Your task to perform on an android device: Open Yahoo.com Image 0: 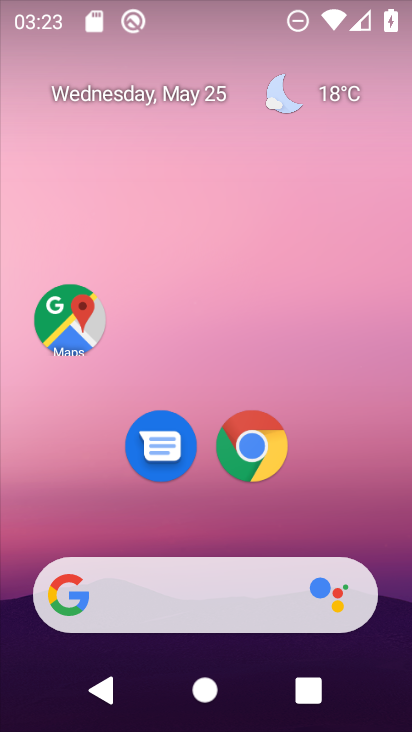
Step 0: click (255, 470)
Your task to perform on an android device: Open Yahoo.com Image 1: 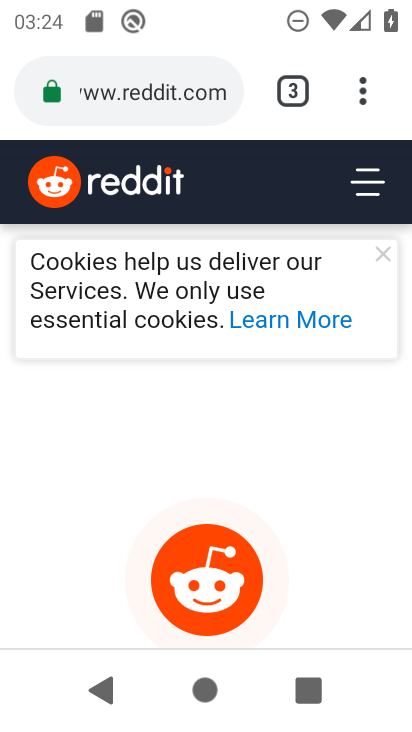
Step 1: click (179, 93)
Your task to perform on an android device: Open Yahoo.com Image 2: 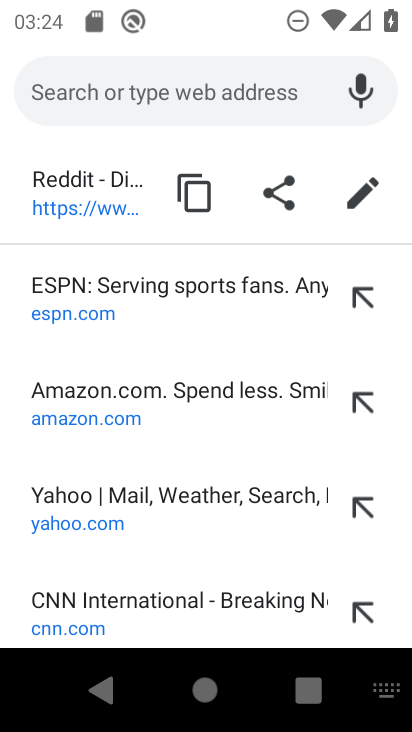
Step 2: click (174, 515)
Your task to perform on an android device: Open Yahoo.com Image 3: 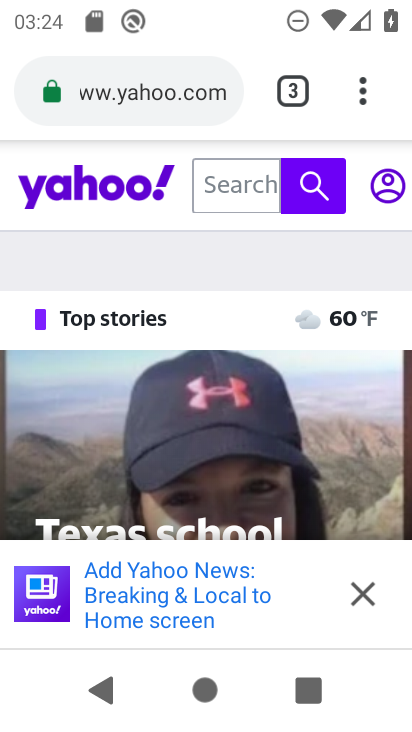
Step 3: task complete